Your task to perform on an android device: turn off notifications in google photos Image 0: 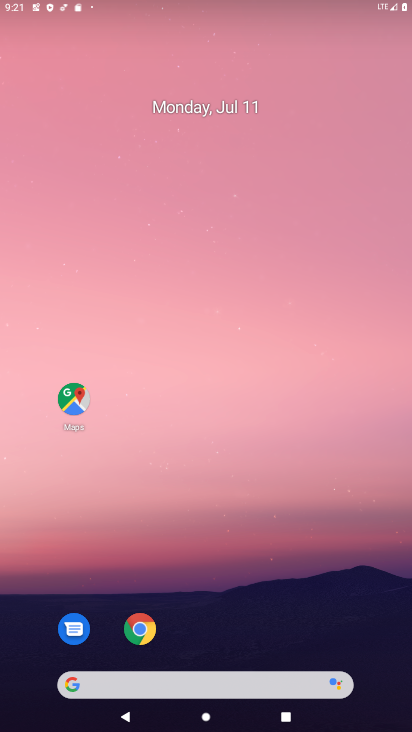
Step 0: click (50, 711)
Your task to perform on an android device: turn off notifications in google photos Image 1: 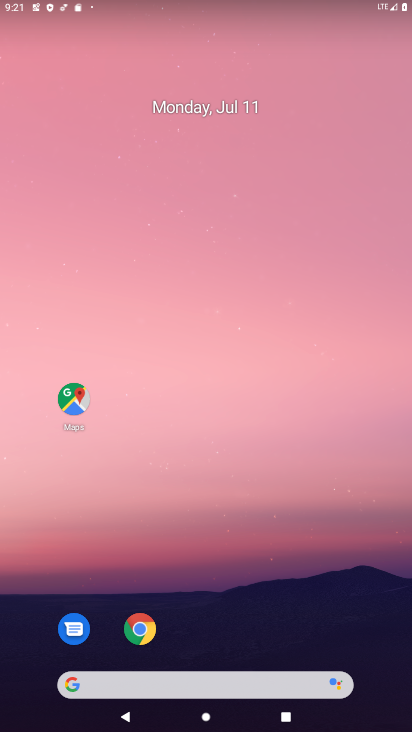
Step 1: drag from (19, 708) to (289, 34)
Your task to perform on an android device: turn off notifications in google photos Image 2: 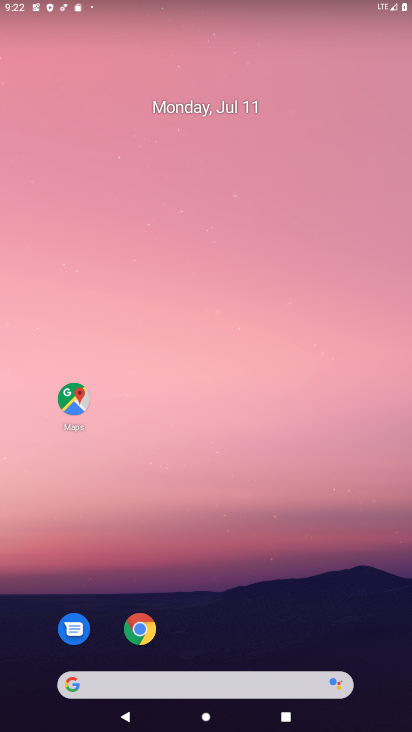
Step 2: drag from (9, 714) to (275, 112)
Your task to perform on an android device: turn off notifications in google photos Image 3: 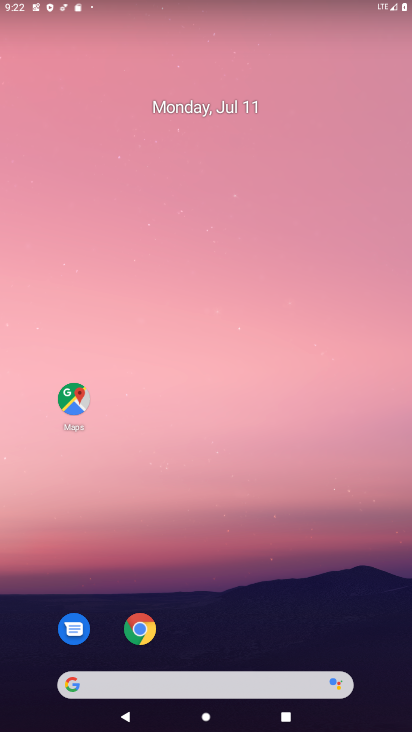
Step 3: drag from (66, 685) to (321, 210)
Your task to perform on an android device: turn off notifications in google photos Image 4: 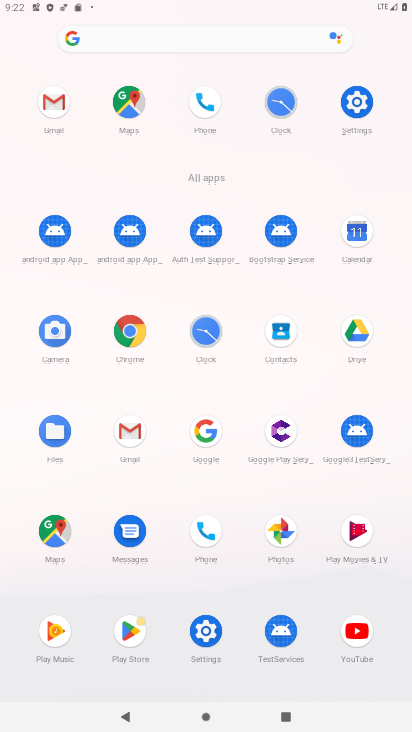
Step 4: click (273, 526)
Your task to perform on an android device: turn off notifications in google photos Image 5: 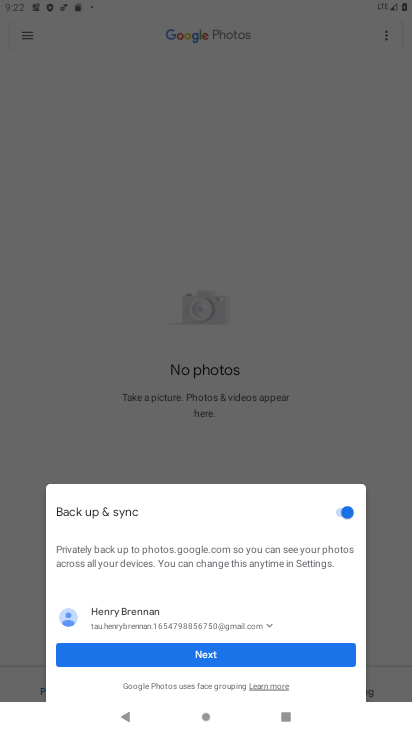
Step 5: click (205, 653)
Your task to perform on an android device: turn off notifications in google photos Image 6: 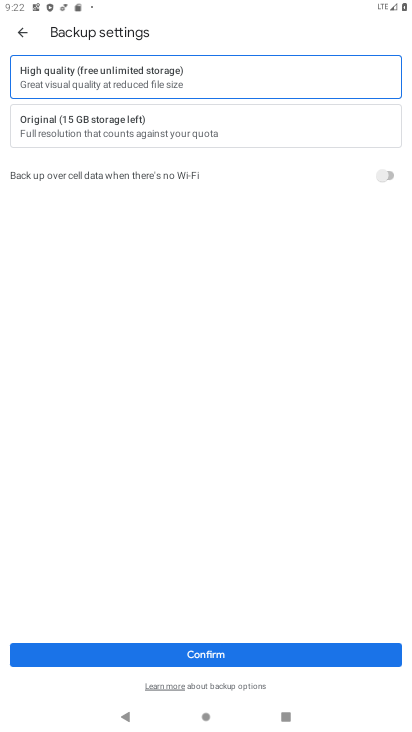
Step 6: click (190, 659)
Your task to perform on an android device: turn off notifications in google photos Image 7: 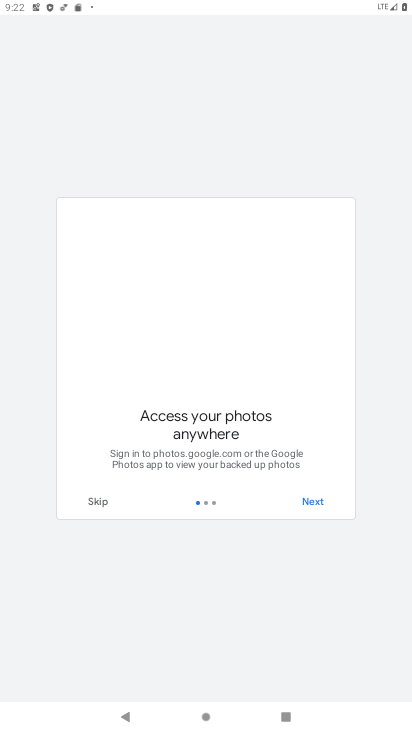
Step 7: click (315, 492)
Your task to perform on an android device: turn off notifications in google photos Image 8: 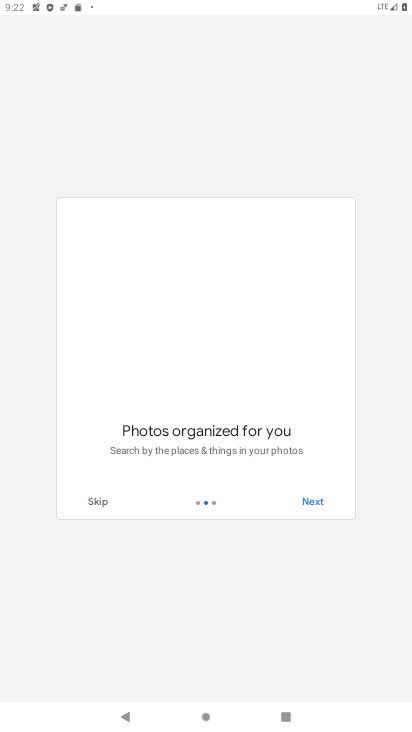
Step 8: click (317, 498)
Your task to perform on an android device: turn off notifications in google photos Image 9: 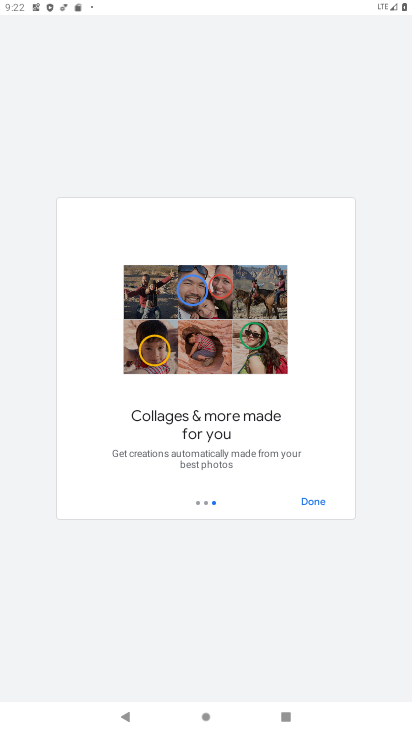
Step 9: click (302, 497)
Your task to perform on an android device: turn off notifications in google photos Image 10: 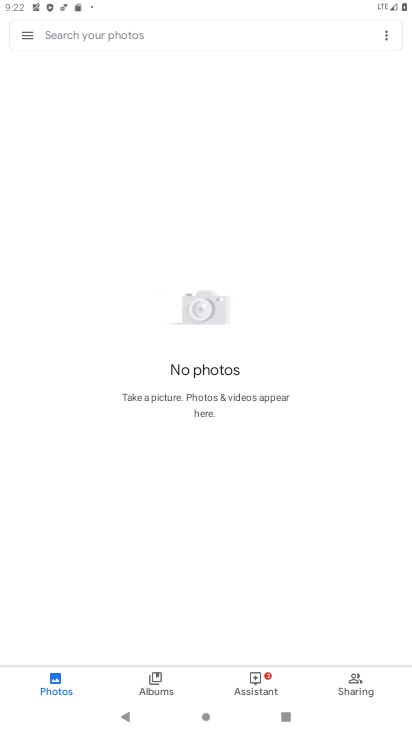
Step 10: click (26, 27)
Your task to perform on an android device: turn off notifications in google photos Image 11: 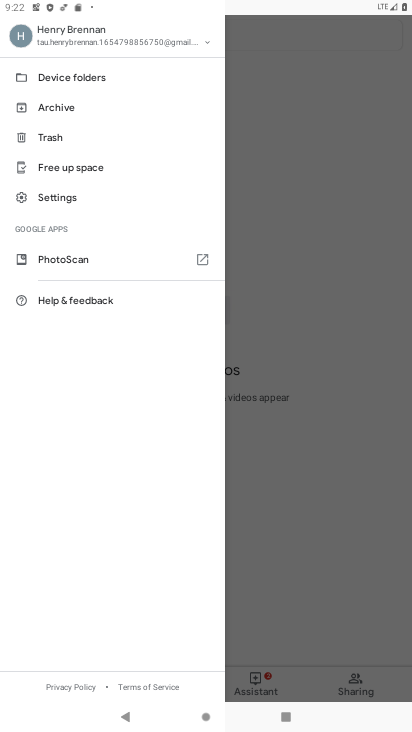
Step 11: click (47, 198)
Your task to perform on an android device: turn off notifications in google photos Image 12: 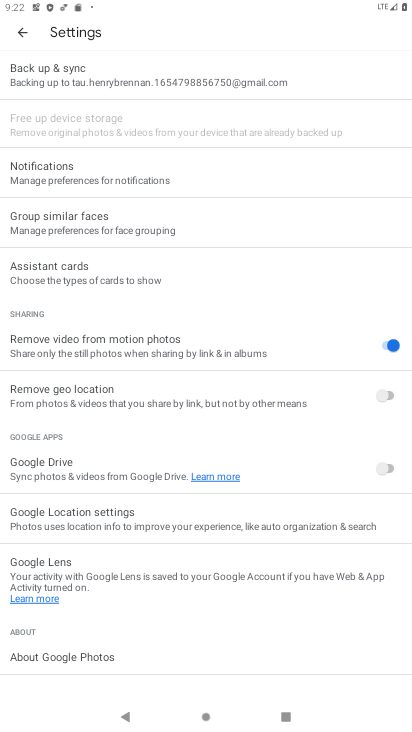
Step 12: click (75, 161)
Your task to perform on an android device: turn off notifications in google photos Image 13: 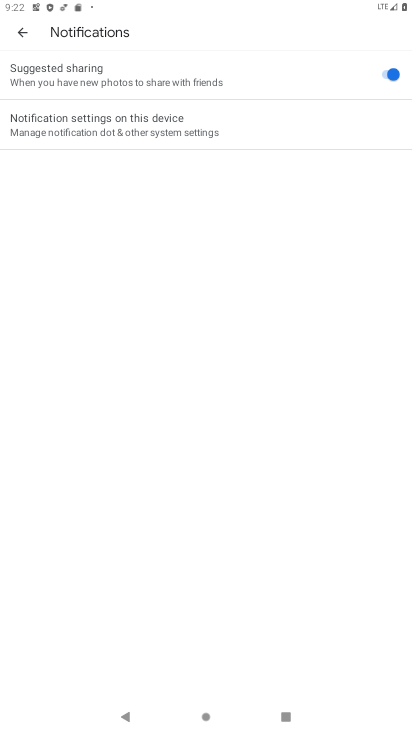
Step 13: click (205, 120)
Your task to perform on an android device: turn off notifications in google photos Image 14: 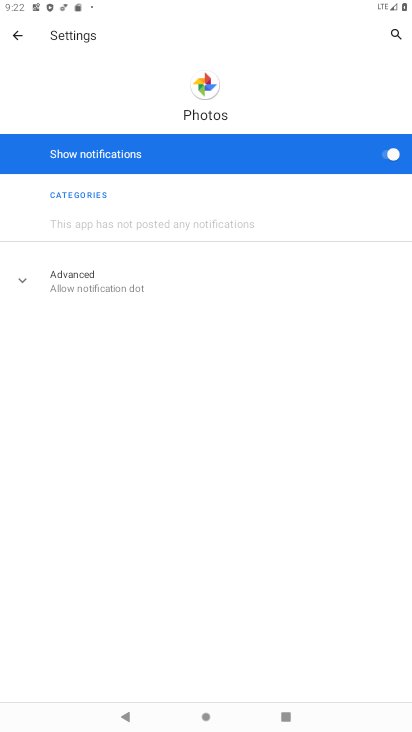
Step 14: click (389, 153)
Your task to perform on an android device: turn off notifications in google photos Image 15: 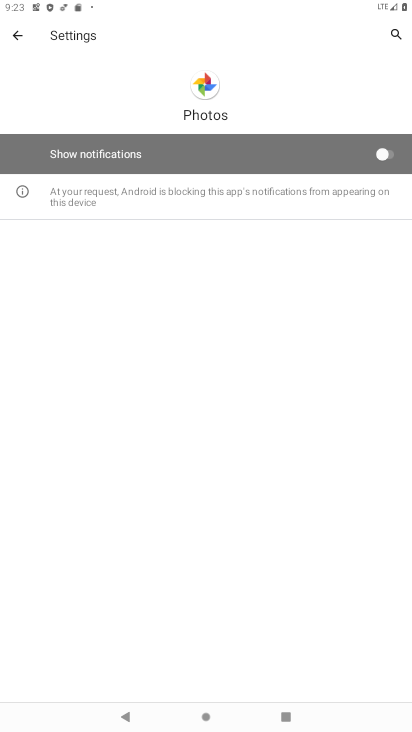
Step 15: task complete